Your task to perform on an android device: check out phone information Image 0: 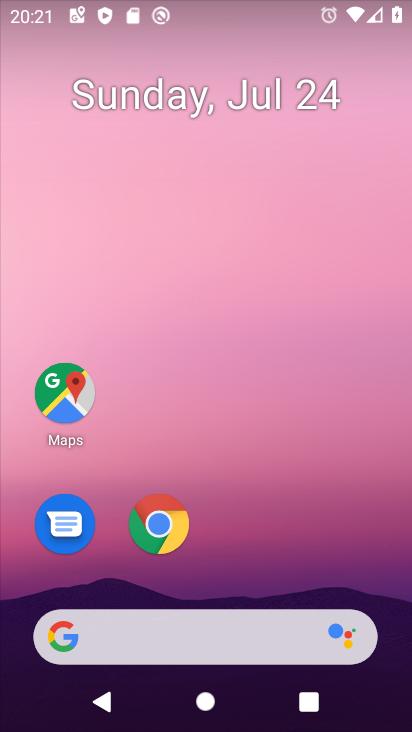
Step 0: drag from (275, 528) to (252, 13)
Your task to perform on an android device: check out phone information Image 1: 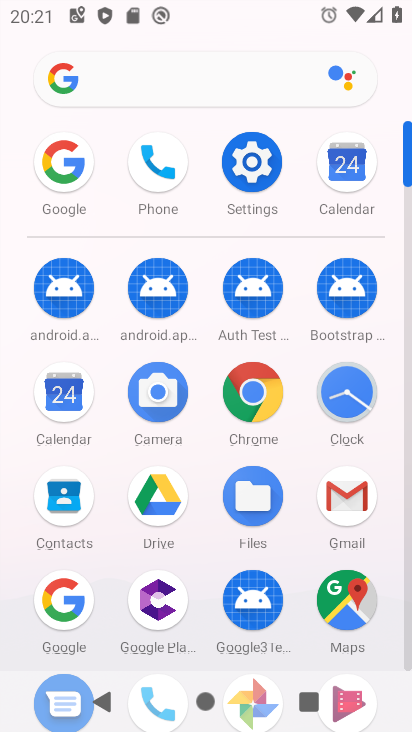
Step 1: click (165, 169)
Your task to perform on an android device: check out phone information Image 2: 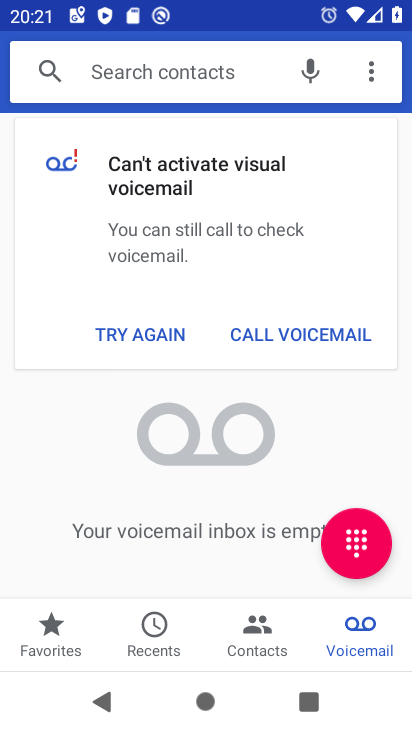
Step 2: click (368, 75)
Your task to perform on an android device: check out phone information Image 3: 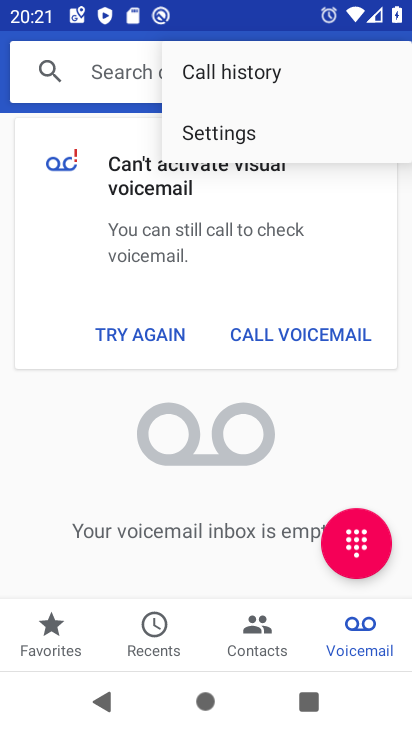
Step 3: click (269, 134)
Your task to perform on an android device: check out phone information Image 4: 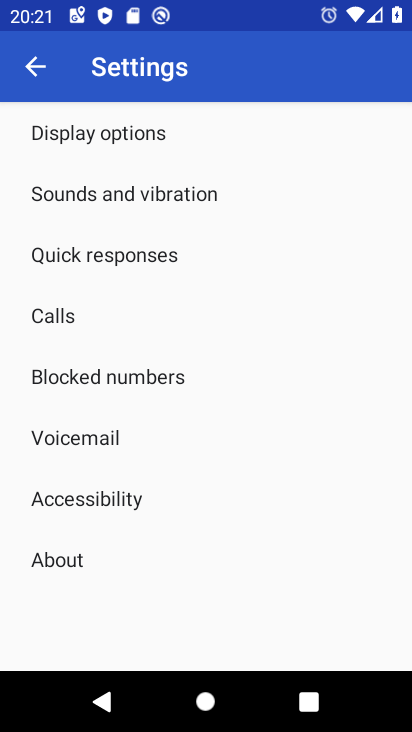
Step 4: click (74, 555)
Your task to perform on an android device: check out phone information Image 5: 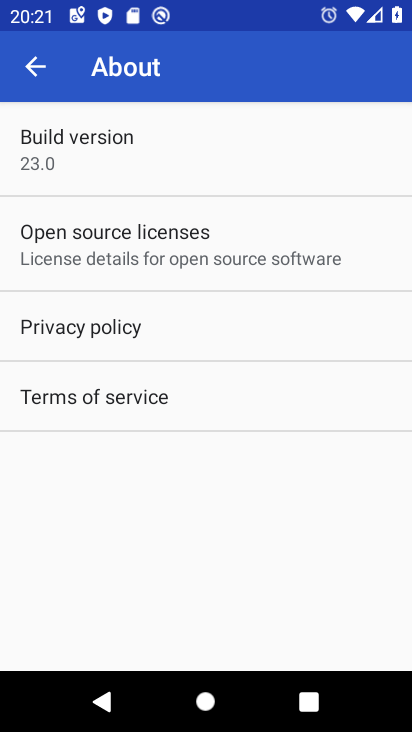
Step 5: task complete